Your task to perform on an android device: open device folders in google photos Image 0: 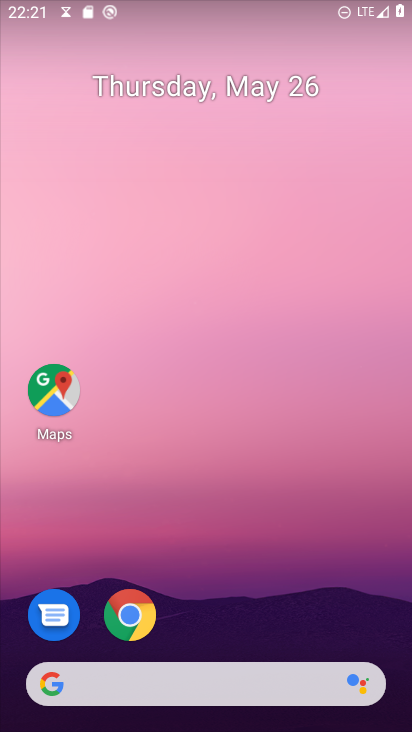
Step 0: drag from (252, 580) to (258, 262)
Your task to perform on an android device: open device folders in google photos Image 1: 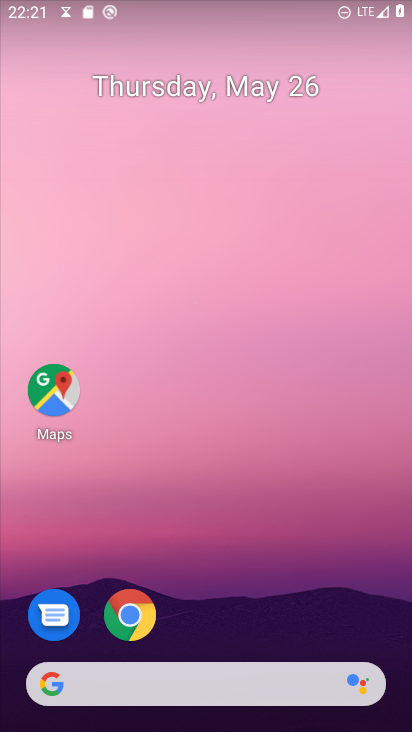
Step 1: drag from (262, 617) to (302, 236)
Your task to perform on an android device: open device folders in google photos Image 2: 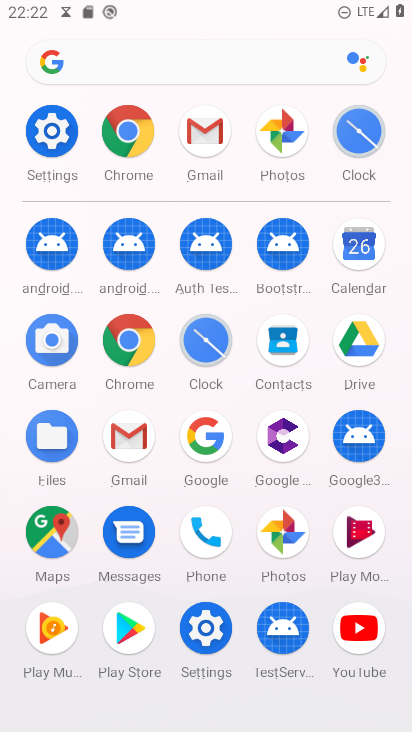
Step 2: click (279, 526)
Your task to perform on an android device: open device folders in google photos Image 3: 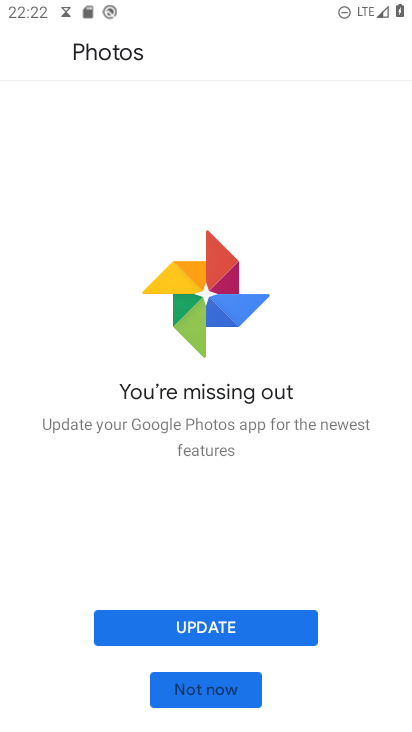
Step 3: click (212, 687)
Your task to perform on an android device: open device folders in google photos Image 4: 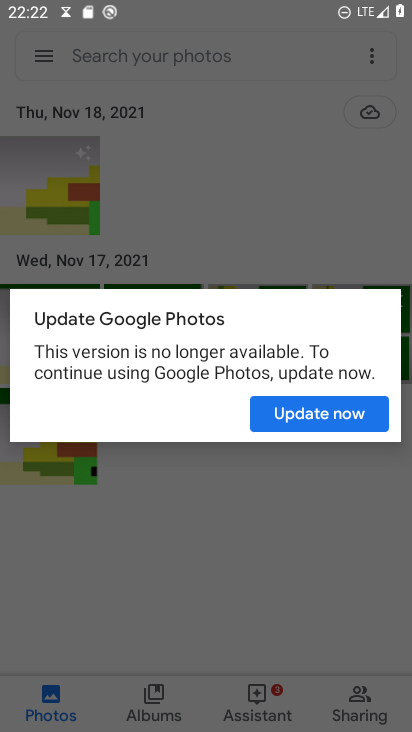
Step 4: click (342, 397)
Your task to perform on an android device: open device folders in google photos Image 5: 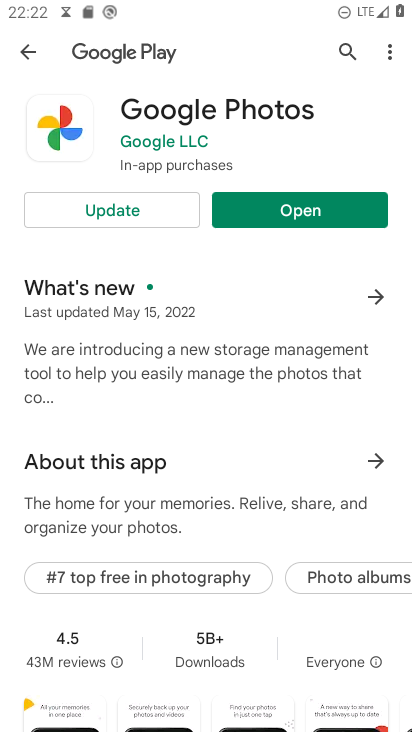
Step 5: press back button
Your task to perform on an android device: open device folders in google photos Image 6: 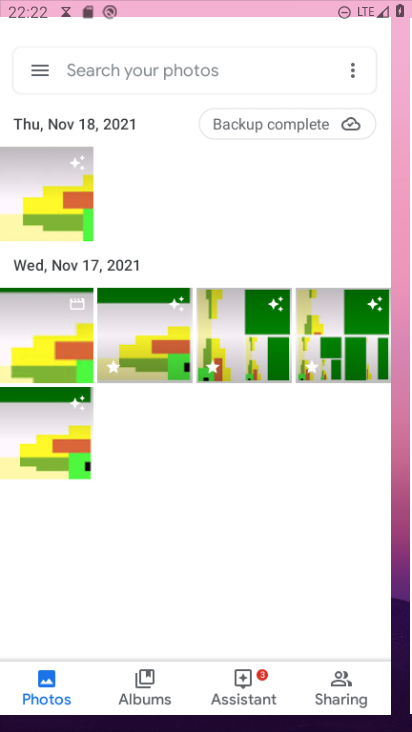
Step 6: click (35, 48)
Your task to perform on an android device: open device folders in google photos Image 7: 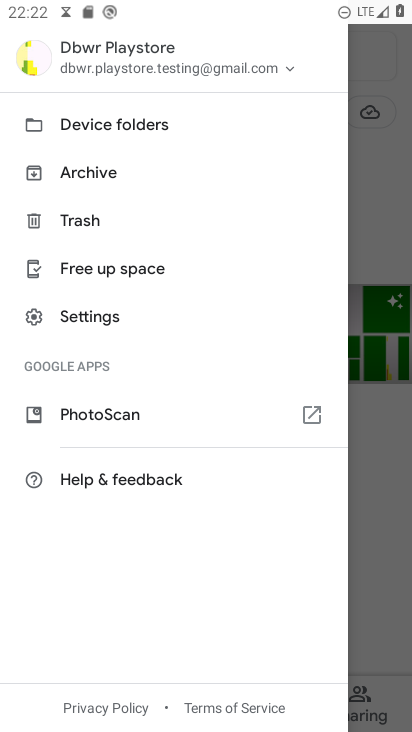
Step 7: click (371, 261)
Your task to perform on an android device: open device folders in google photos Image 8: 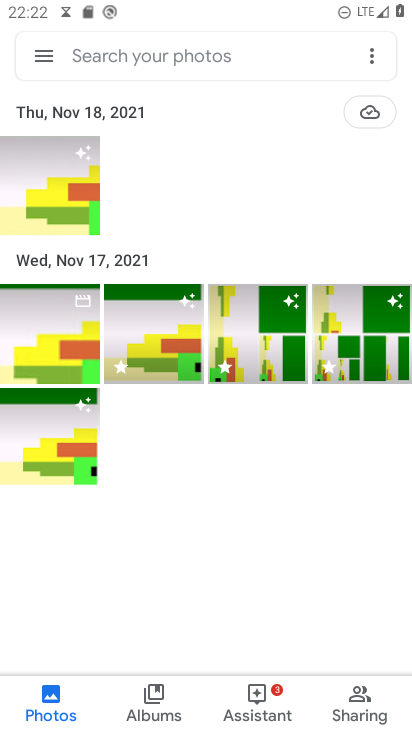
Step 8: task complete